Your task to perform on an android device: Open Google Chrome and click the shortcut for Amazon.com Image 0: 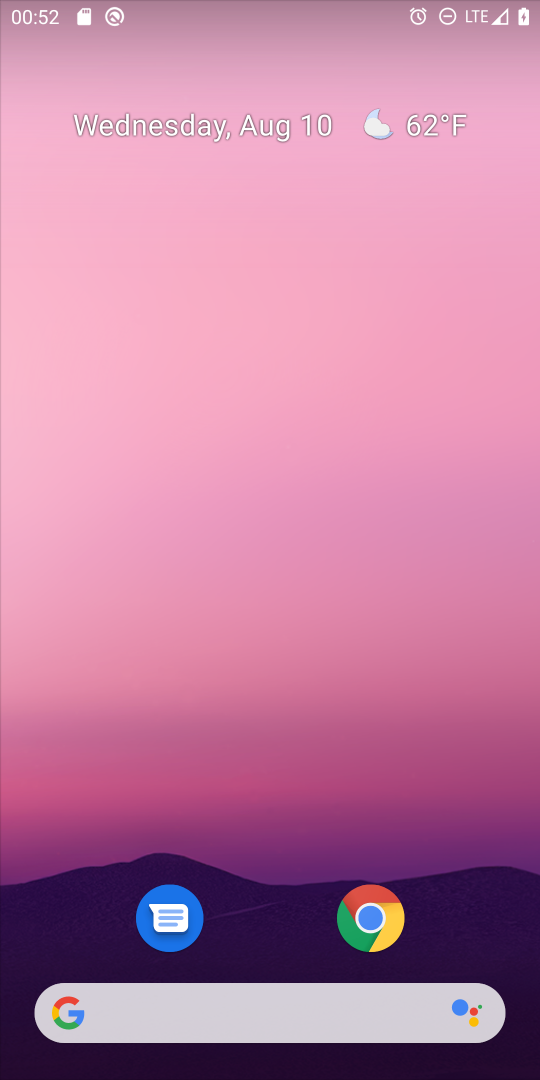
Step 0: drag from (263, 754) to (364, 48)
Your task to perform on an android device: Open Google Chrome and click the shortcut for Amazon.com Image 1: 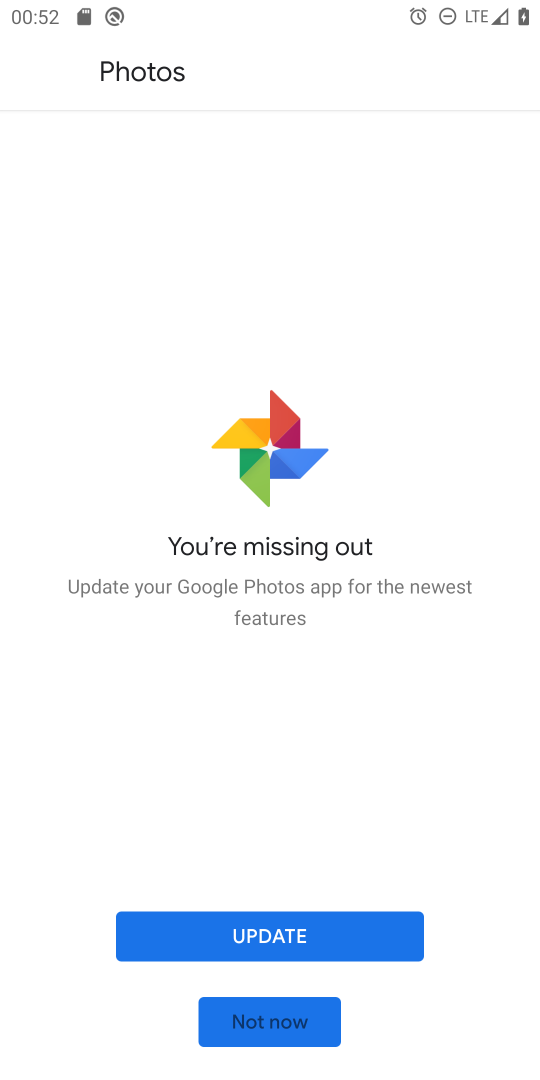
Step 1: click (286, 1028)
Your task to perform on an android device: Open Google Chrome and click the shortcut for Amazon.com Image 2: 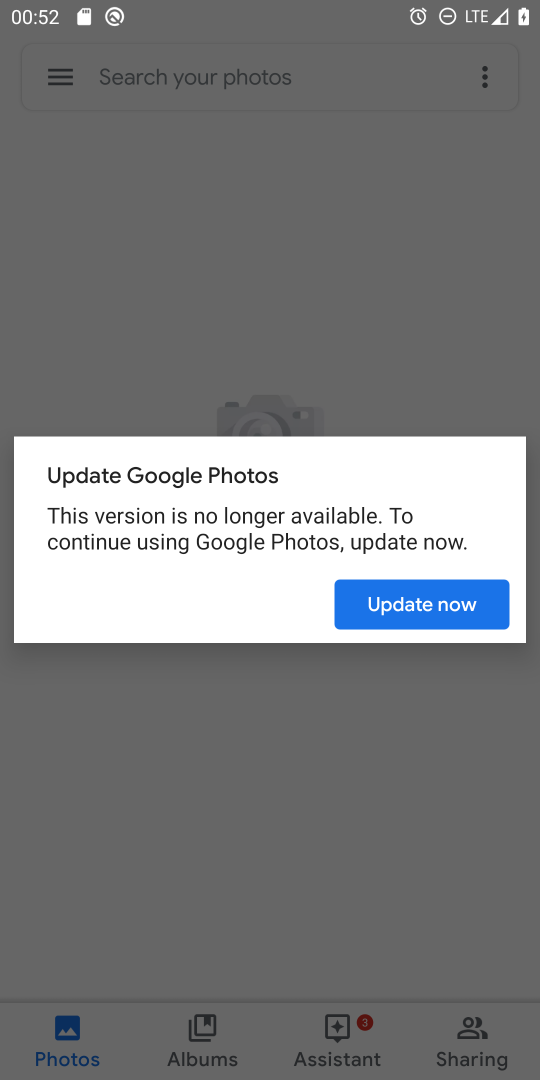
Step 2: press home button
Your task to perform on an android device: Open Google Chrome and click the shortcut for Amazon.com Image 3: 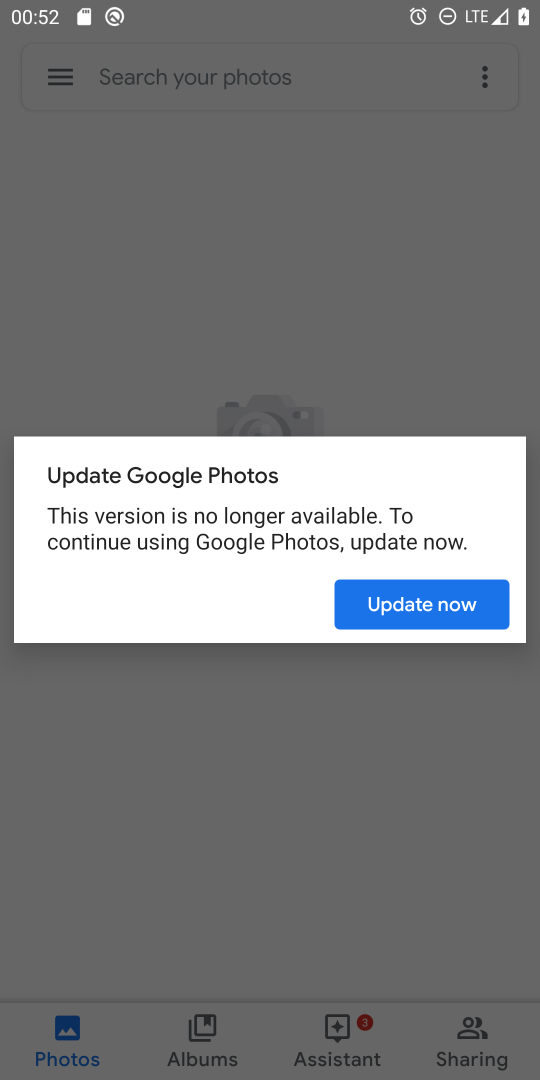
Step 3: press home button
Your task to perform on an android device: Open Google Chrome and click the shortcut for Amazon.com Image 4: 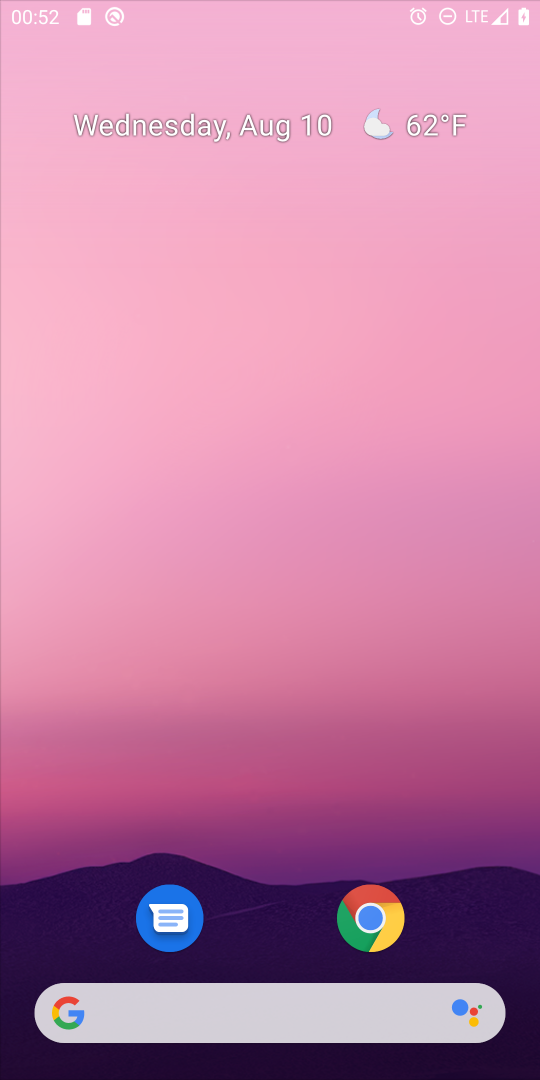
Step 4: press home button
Your task to perform on an android device: Open Google Chrome and click the shortcut for Amazon.com Image 5: 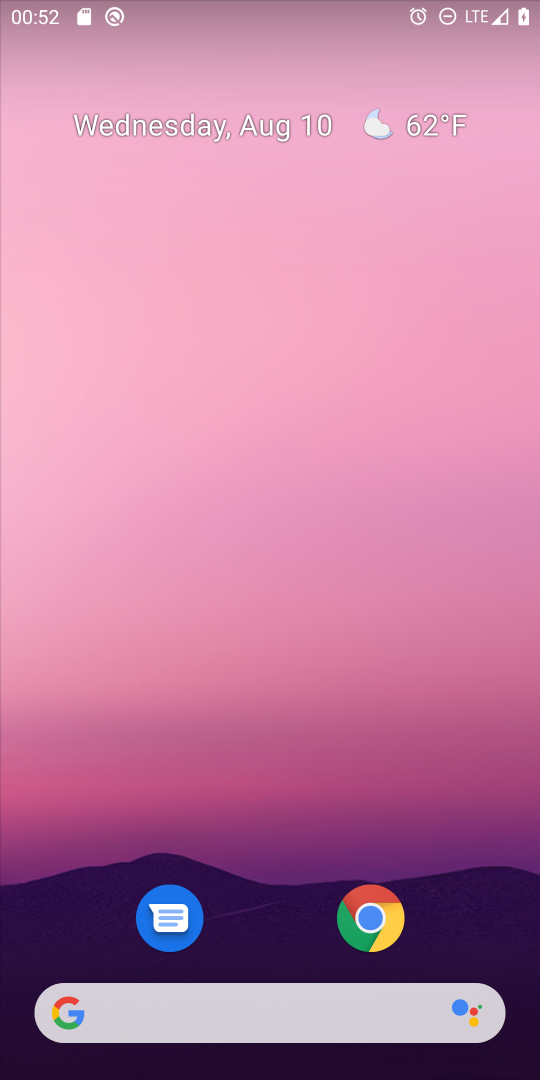
Step 5: drag from (261, 751) to (303, 102)
Your task to perform on an android device: Open Google Chrome and click the shortcut for Amazon.com Image 6: 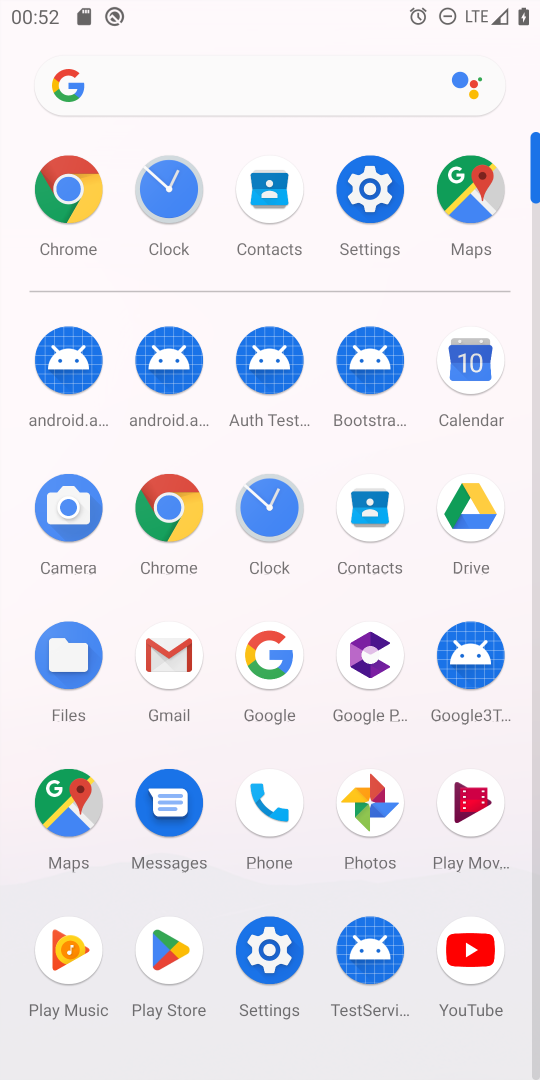
Step 6: click (173, 509)
Your task to perform on an android device: Open Google Chrome and click the shortcut for Amazon.com Image 7: 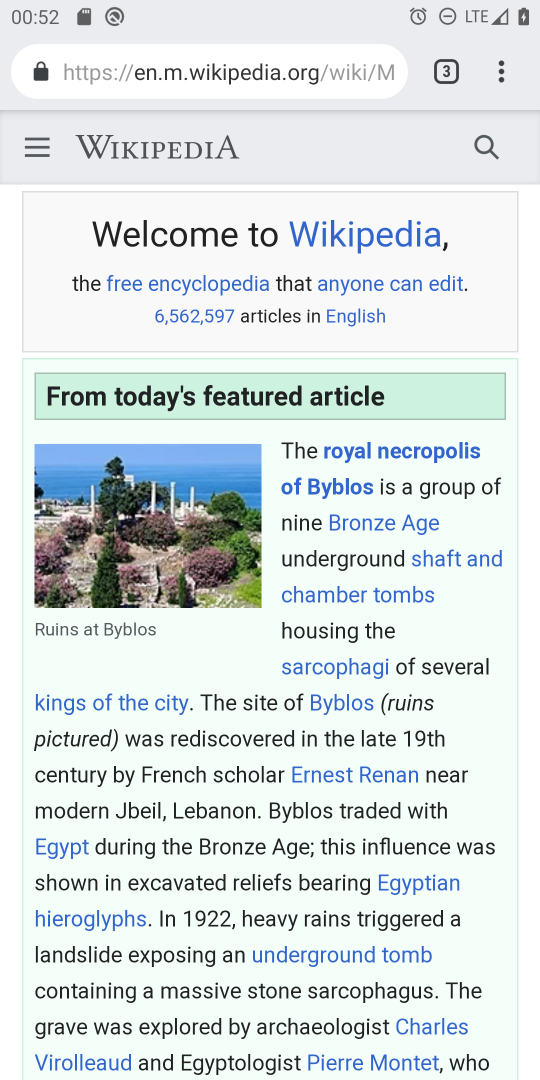
Step 7: drag from (506, 72) to (249, 232)
Your task to perform on an android device: Open Google Chrome and click the shortcut for Amazon.com Image 8: 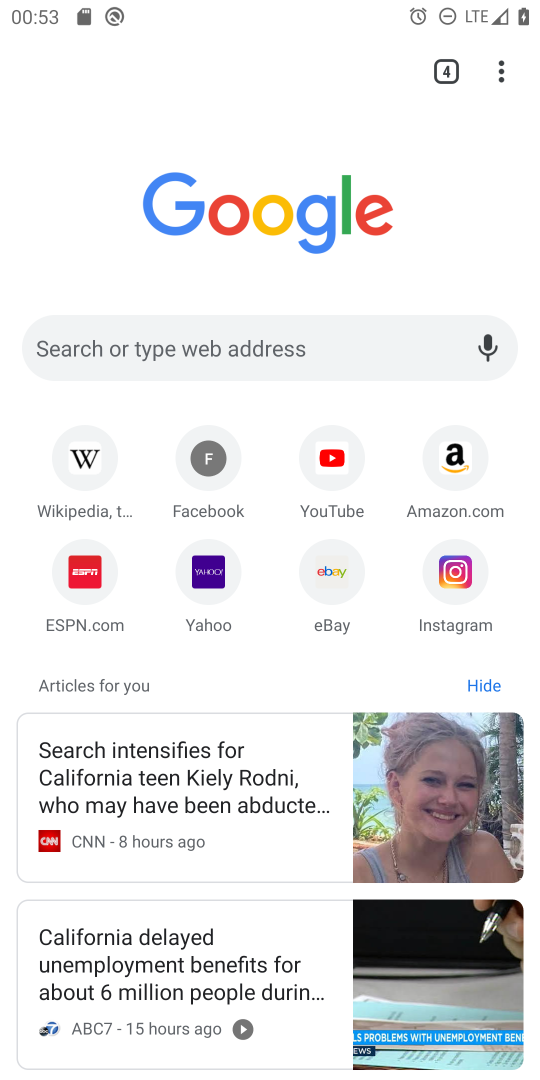
Step 8: click (443, 466)
Your task to perform on an android device: Open Google Chrome and click the shortcut for Amazon.com Image 9: 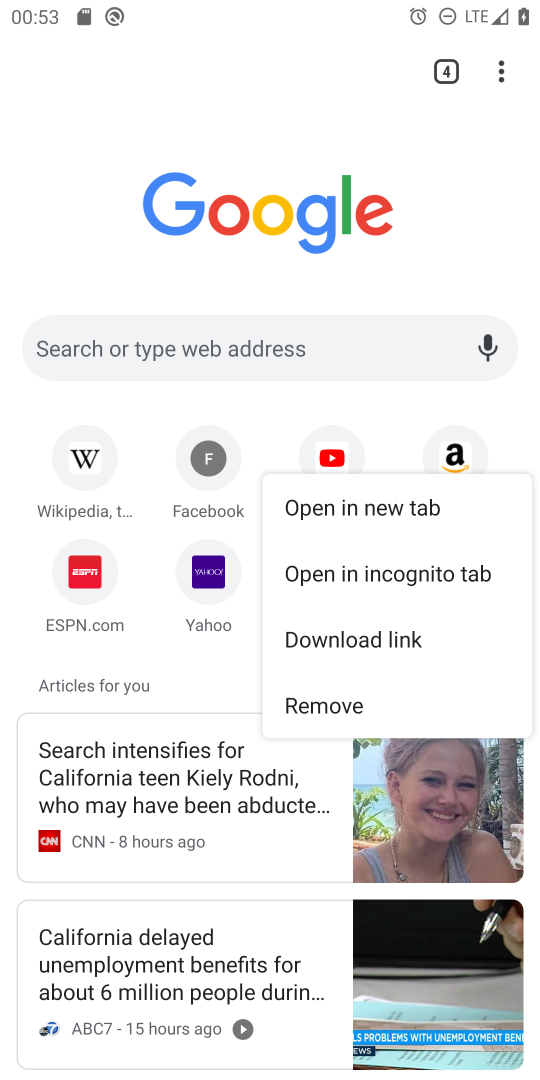
Step 9: task complete